Your task to perform on an android device: turn off notifications settings in the gmail app Image 0: 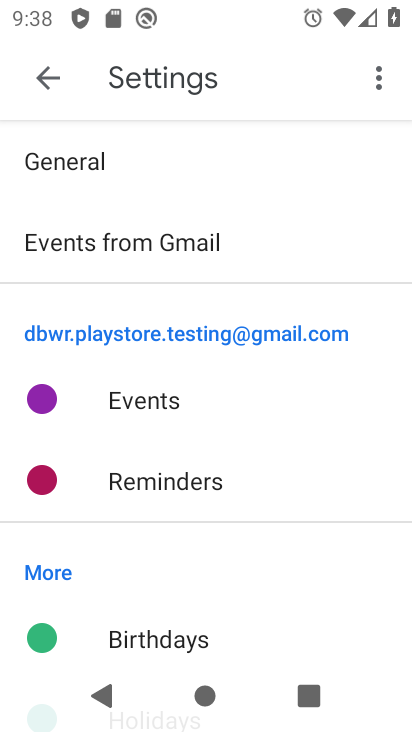
Step 0: press home button
Your task to perform on an android device: turn off notifications settings in the gmail app Image 1: 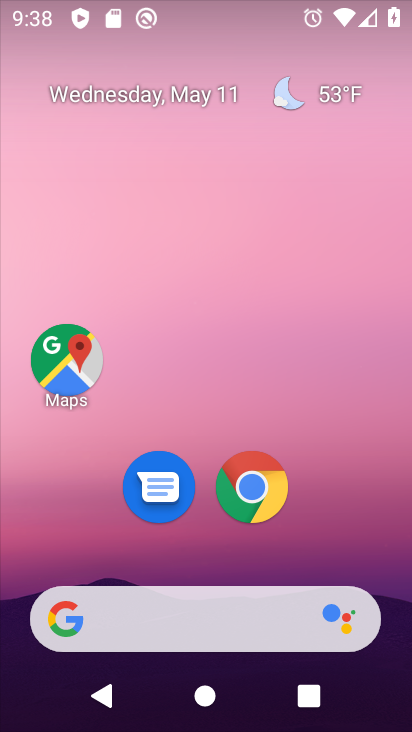
Step 1: drag from (193, 555) to (206, 160)
Your task to perform on an android device: turn off notifications settings in the gmail app Image 2: 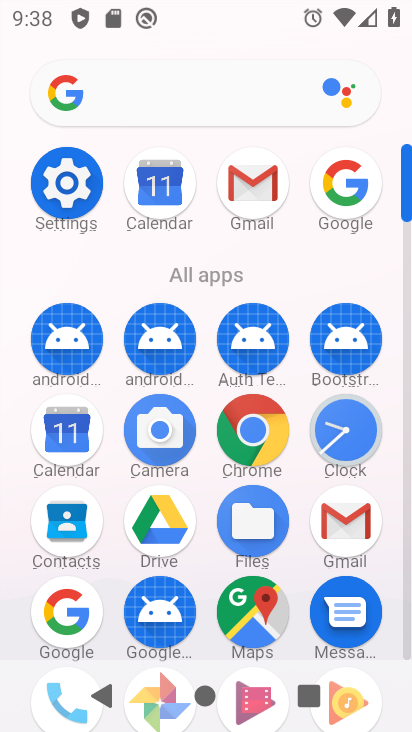
Step 2: click (276, 209)
Your task to perform on an android device: turn off notifications settings in the gmail app Image 3: 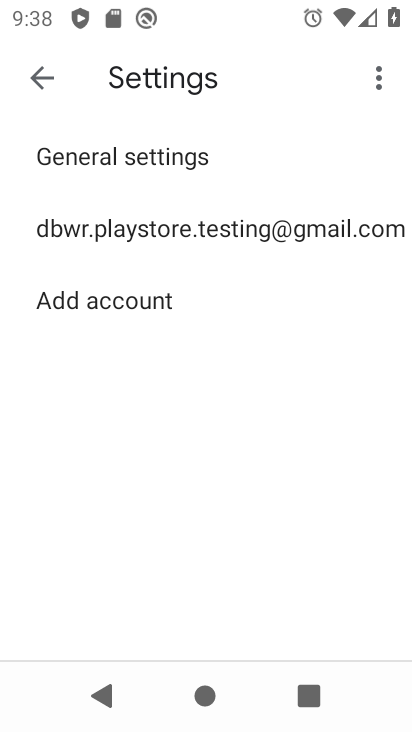
Step 3: click (25, 84)
Your task to perform on an android device: turn off notifications settings in the gmail app Image 4: 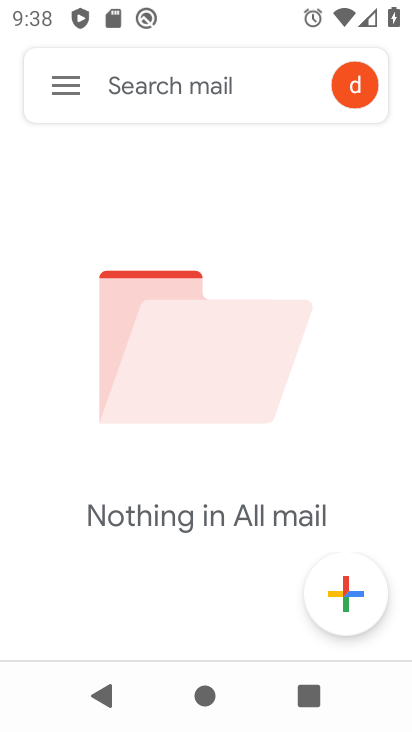
Step 4: click (70, 86)
Your task to perform on an android device: turn off notifications settings in the gmail app Image 5: 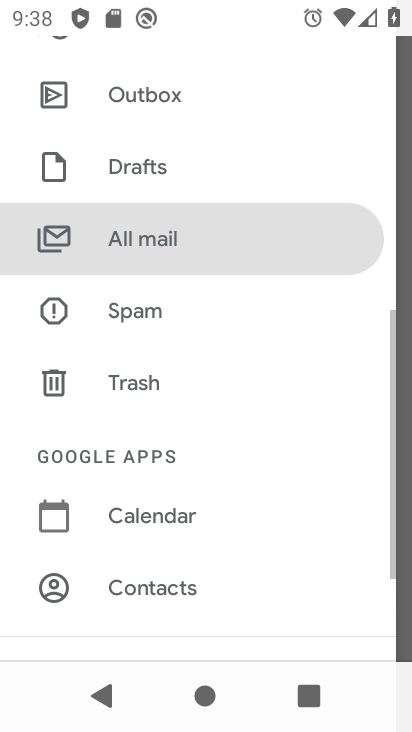
Step 5: drag from (162, 546) to (192, 44)
Your task to perform on an android device: turn off notifications settings in the gmail app Image 6: 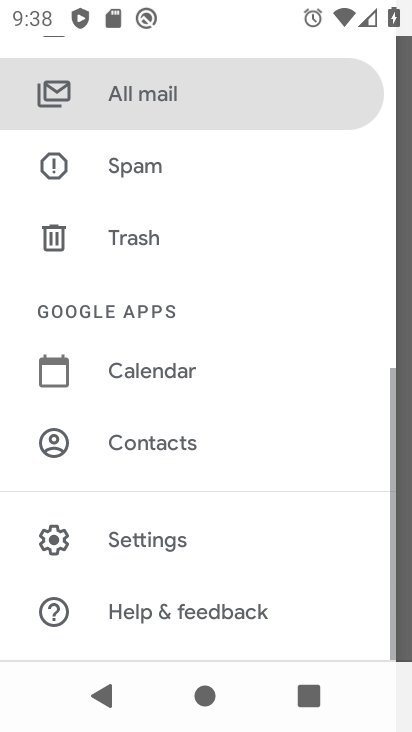
Step 6: click (139, 527)
Your task to perform on an android device: turn off notifications settings in the gmail app Image 7: 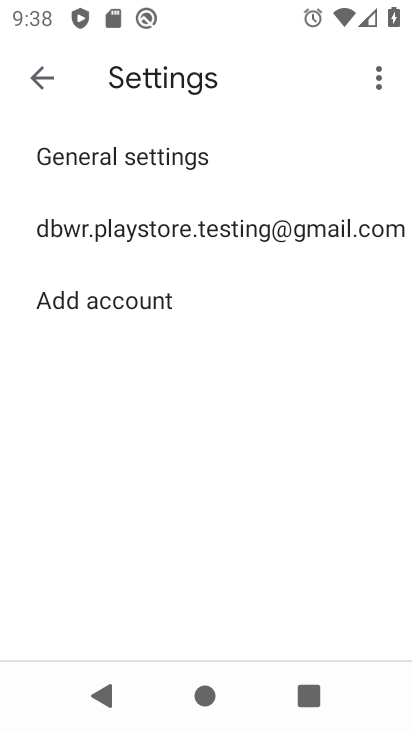
Step 7: click (159, 224)
Your task to perform on an android device: turn off notifications settings in the gmail app Image 8: 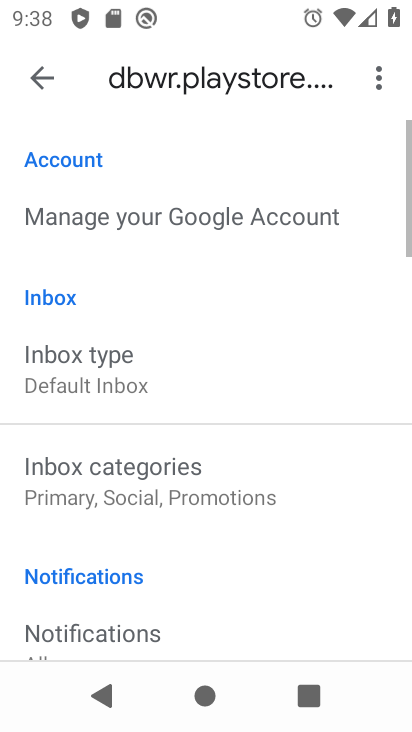
Step 8: drag from (180, 606) to (217, 281)
Your task to perform on an android device: turn off notifications settings in the gmail app Image 9: 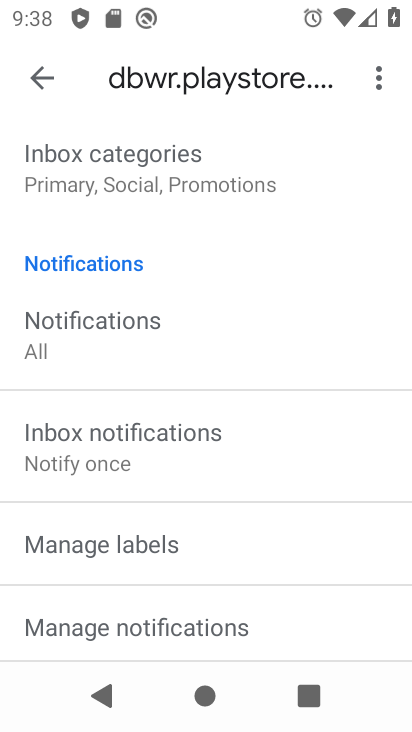
Step 9: click (174, 602)
Your task to perform on an android device: turn off notifications settings in the gmail app Image 10: 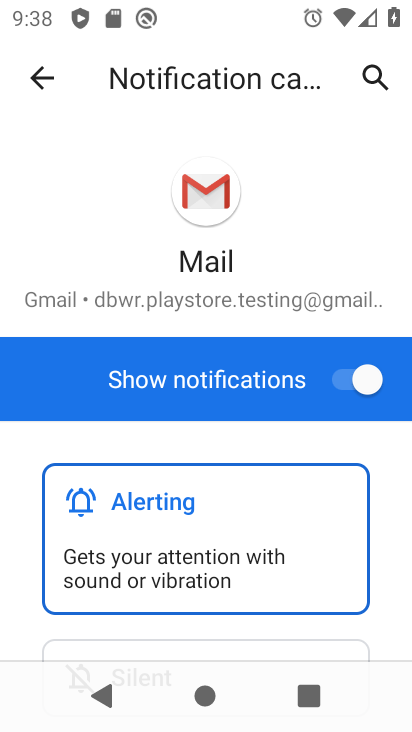
Step 10: click (340, 368)
Your task to perform on an android device: turn off notifications settings in the gmail app Image 11: 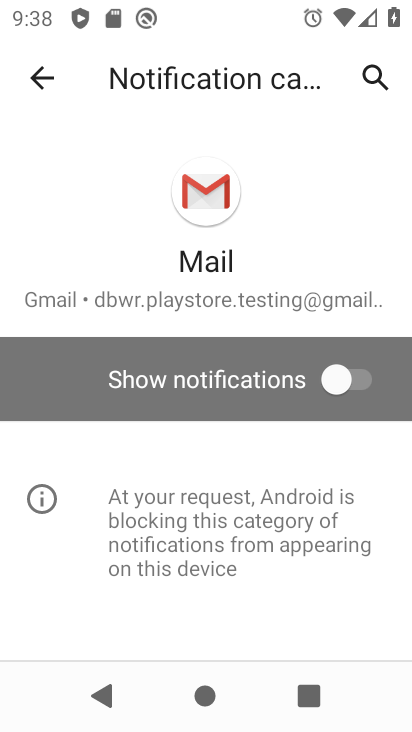
Step 11: task complete